Your task to perform on an android device: Open battery settings Image 0: 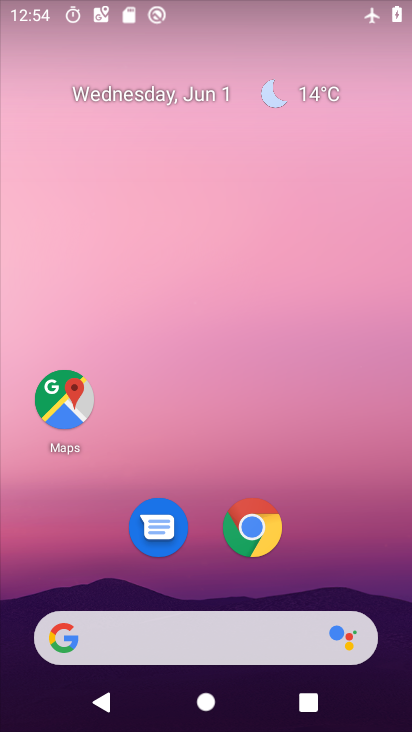
Step 0: drag from (315, 553) to (297, 5)
Your task to perform on an android device: Open battery settings Image 1: 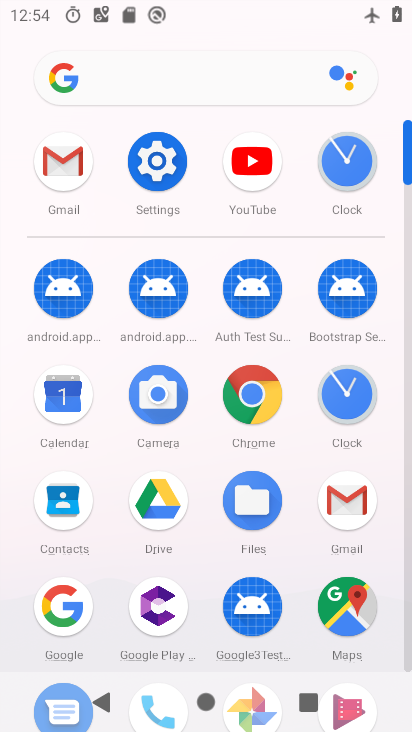
Step 1: click (136, 150)
Your task to perform on an android device: Open battery settings Image 2: 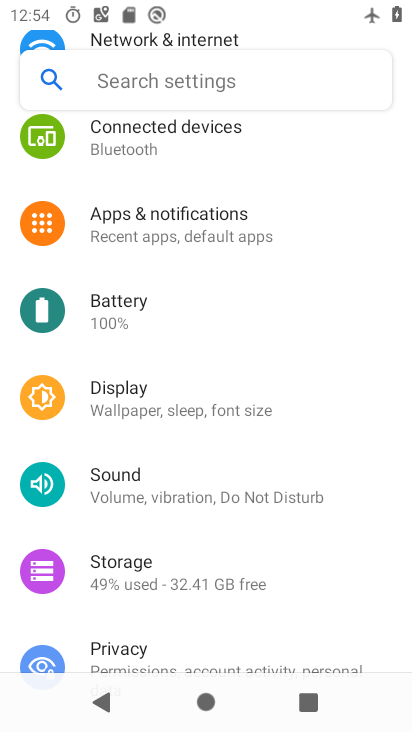
Step 2: click (83, 305)
Your task to perform on an android device: Open battery settings Image 3: 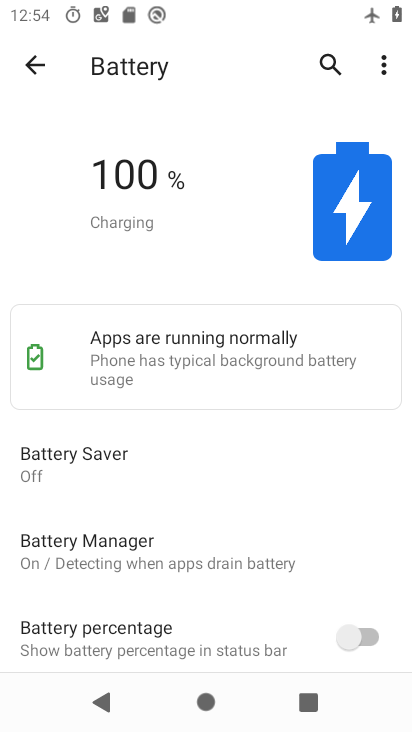
Step 3: task complete